Your task to perform on an android device: Open the phone app and click the voicemail tab. Image 0: 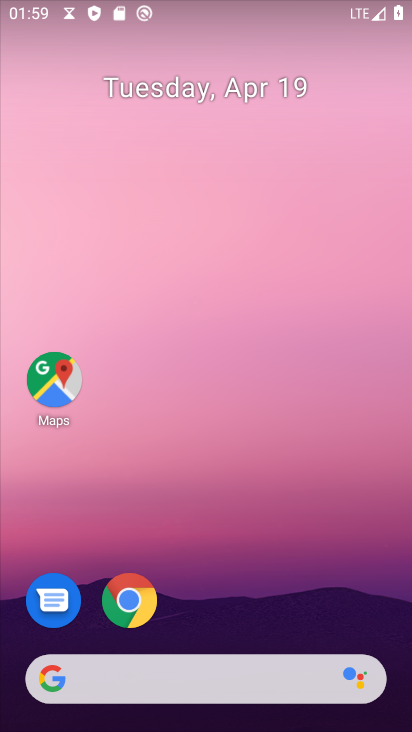
Step 0: drag from (208, 638) to (164, 38)
Your task to perform on an android device: Open the phone app and click the voicemail tab. Image 1: 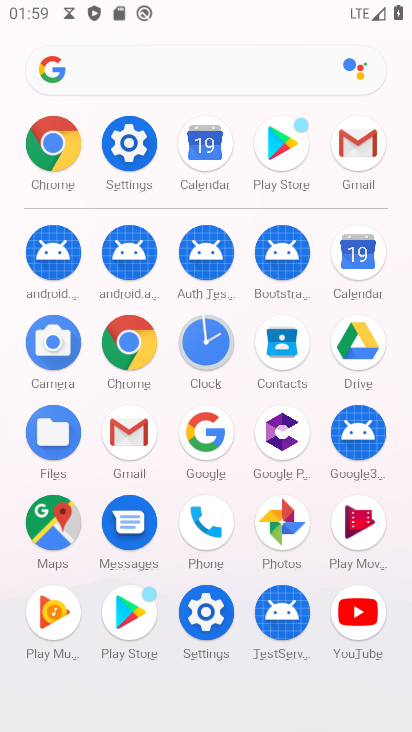
Step 1: click (219, 526)
Your task to perform on an android device: Open the phone app and click the voicemail tab. Image 2: 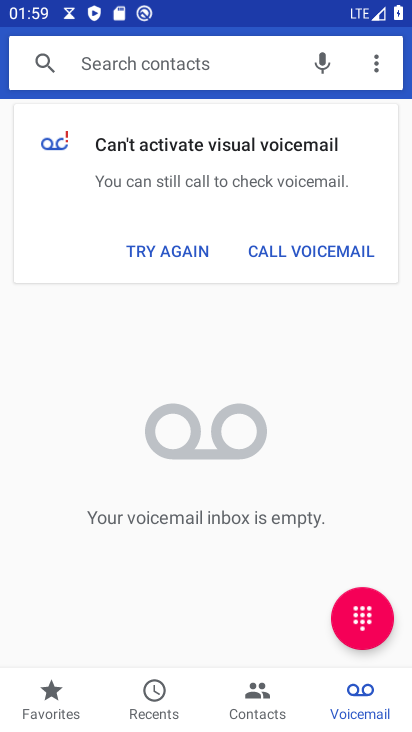
Step 2: click (345, 694)
Your task to perform on an android device: Open the phone app and click the voicemail tab. Image 3: 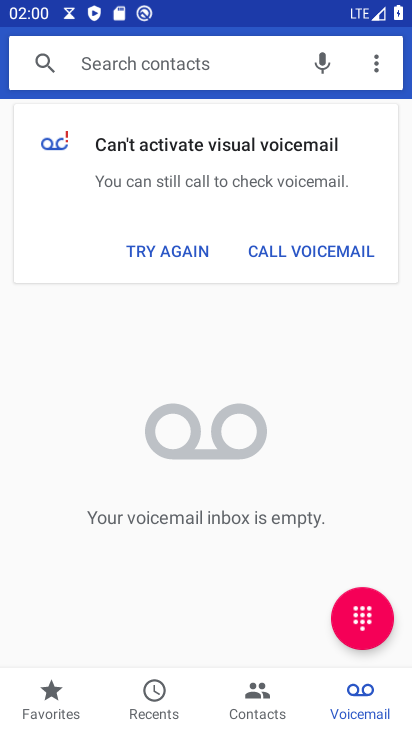
Step 3: task complete